Your task to perform on an android device: Go to wifi settings Image 0: 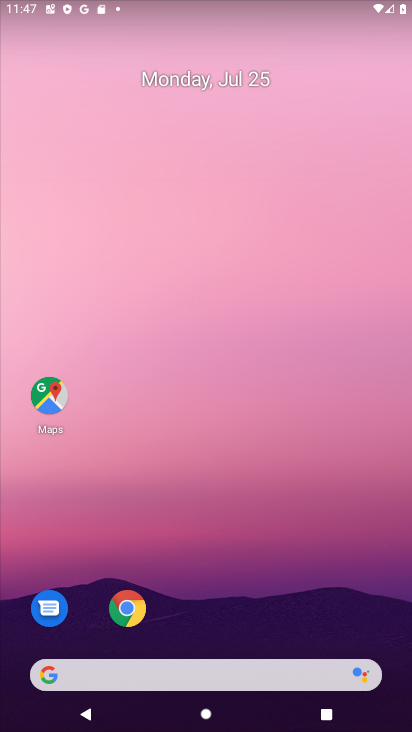
Step 0: drag from (234, 640) to (195, 128)
Your task to perform on an android device: Go to wifi settings Image 1: 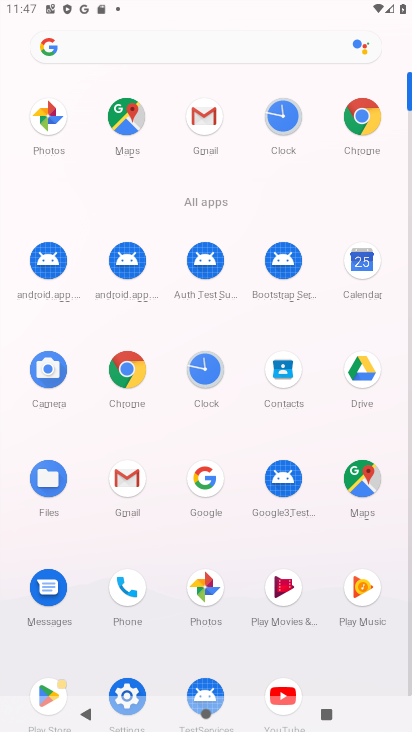
Step 1: drag from (161, 662) to (177, 213)
Your task to perform on an android device: Go to wifi settings Image 2: 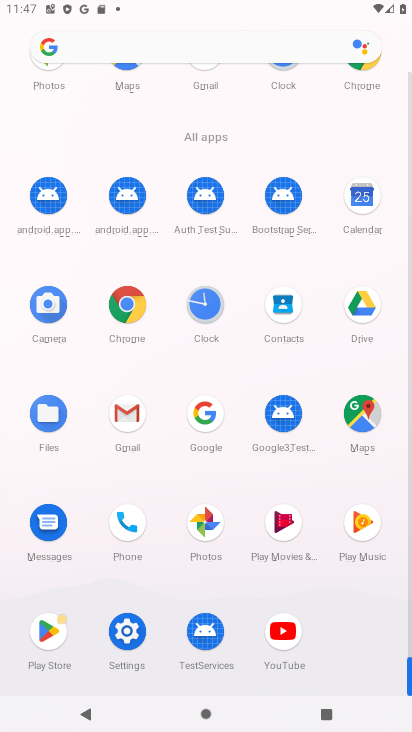
Step 2: click (124, 618)
Your task to perform on an android device: Go to wifi settings Image 3: 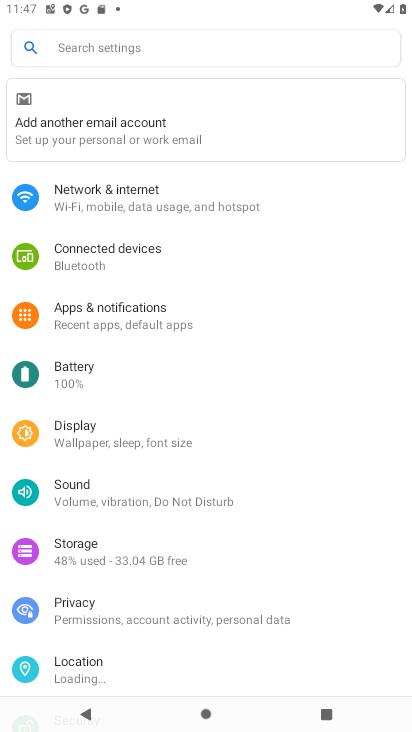
Step 3: click (127, 206)
Your task to perform on an android device: Go to wifi settings Image 4: 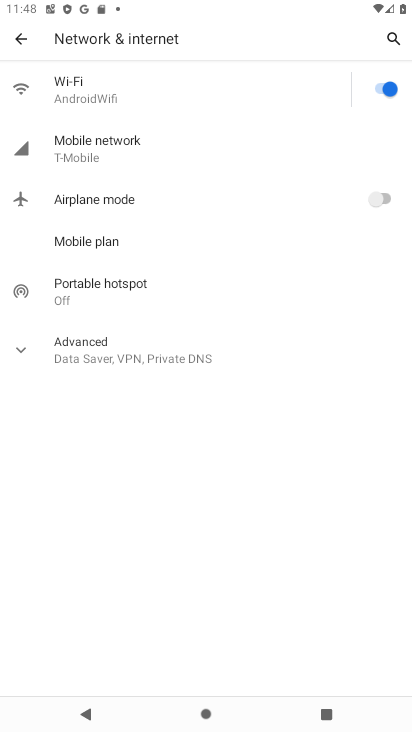
Step 4: click (79, 86)
Your task to perform on an android device: Go to wifi settings Image 5: 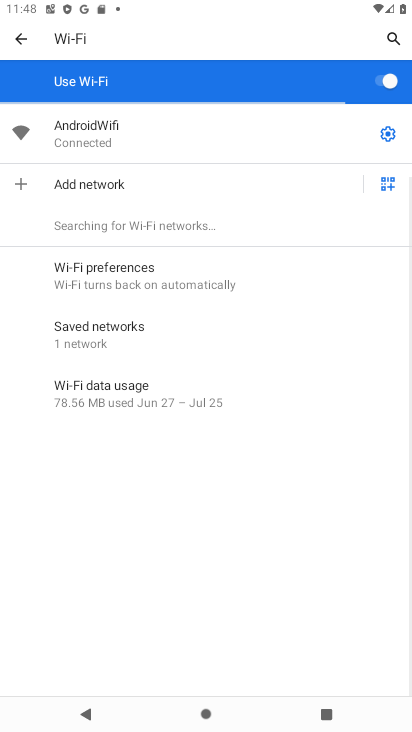
Step 5: click (386, 134)
Your task to perform on an android device: Go to wifi settings Image 6: 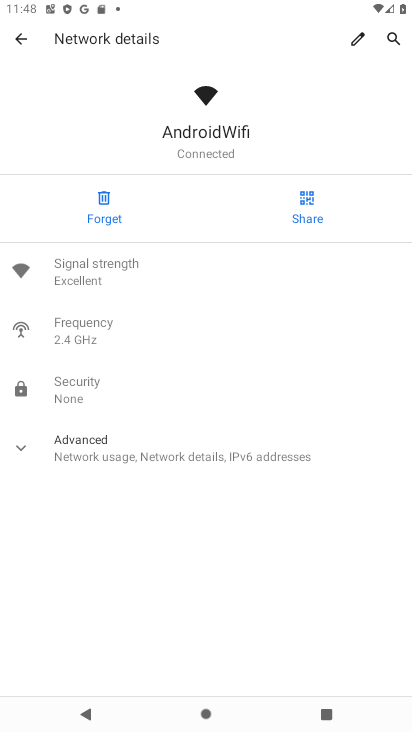
Step 6: click (111, 458)
Your task to perform on an android device: Go to wifi settings Image 7: 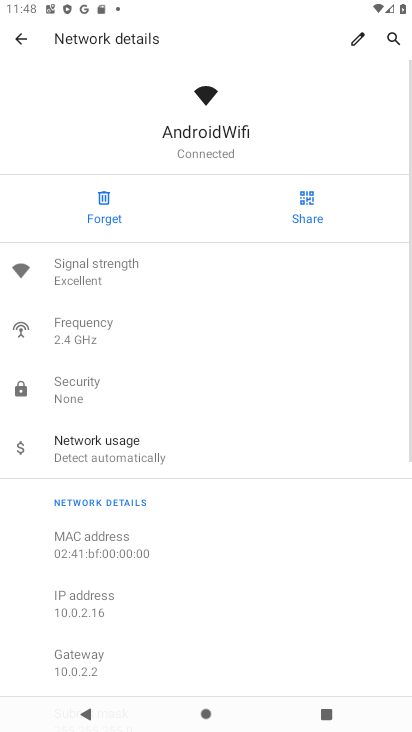
Step 7: task complete